Your task to perform on an android device: star an email in the gmail app Image 0: 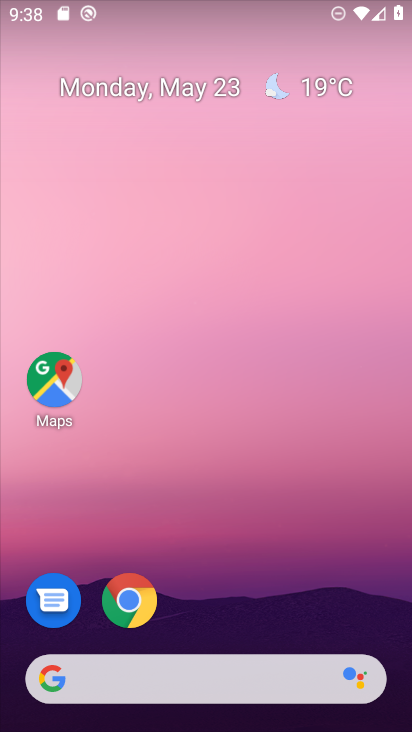
Step 0: press home button
Your task to perform on an android device: star an email in the gmail app Image 1: 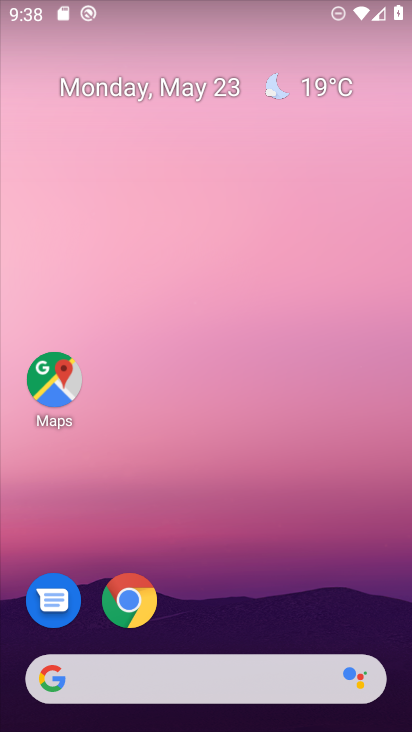
Step 1: drag from (13, 641) to (163, 181)
Your task to perform on an android device: star an email in the gmail app Image 2: 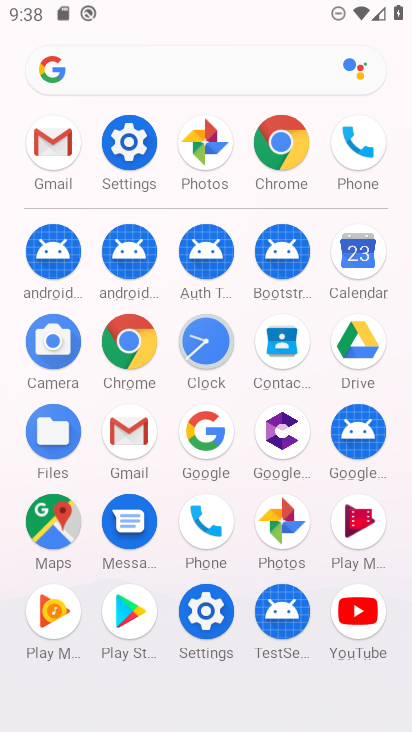
Step 2: click (128, 421)
Your task to perform on an android device: star an email in the gmail app Image 3: 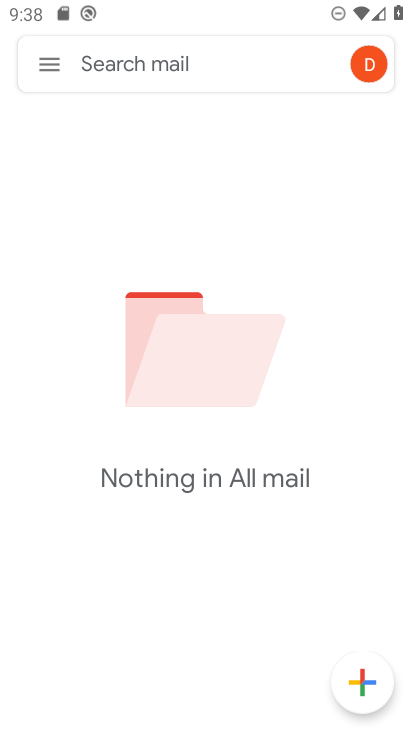
Step 3: click (43, 70)
Your task to perform on an android device: star an email in the gmail app Image 4: 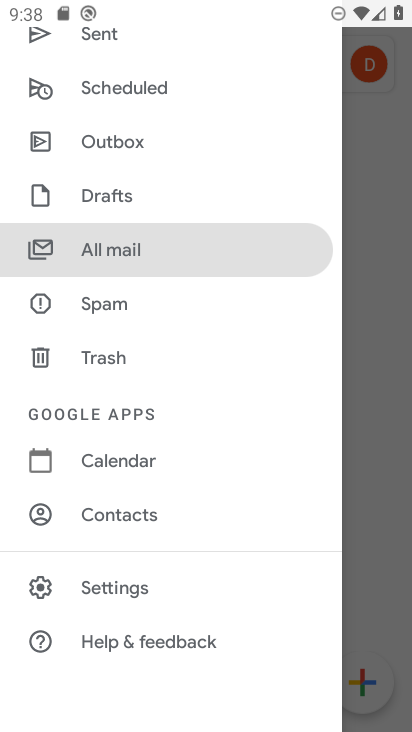
Step 4: task complete